Your task to perform on an android device: Go to privacy settings Image 0: 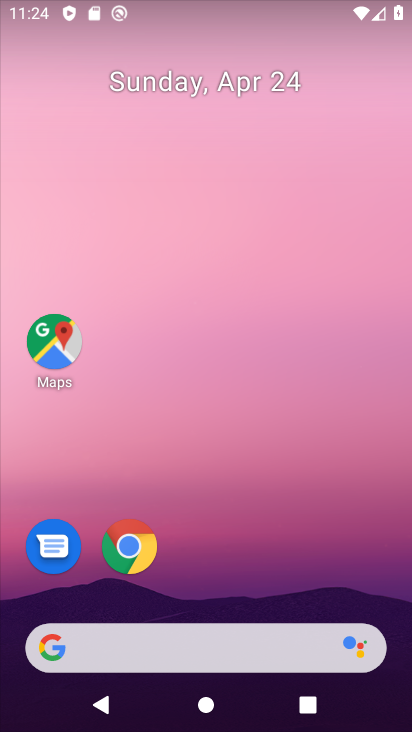
Step 0: click (106, 541)
Your task to perform on an android device: Go to privacy settings Image 1: 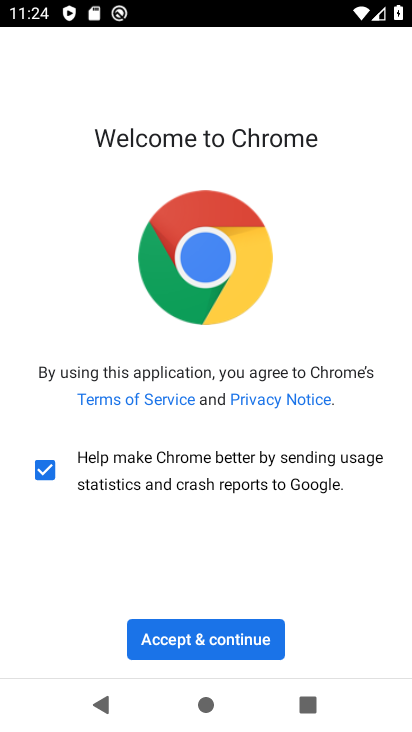
Step 1: click (235, 637)
Your task to perform on an android device: Go to privacy settings Image 2: 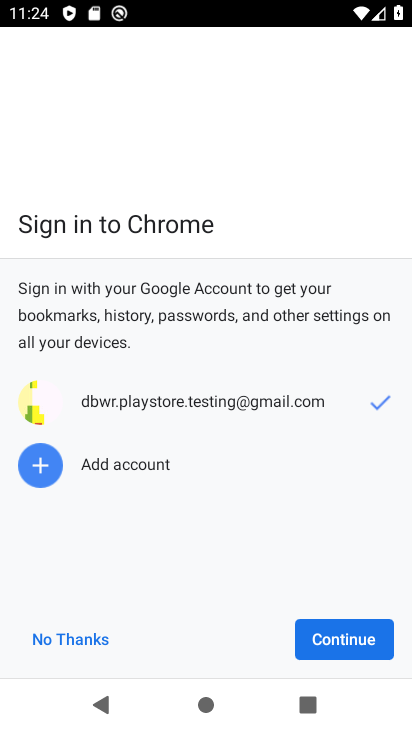
Step 2: click (353, 636)
Your task to perform on an android device: Go to privacy settings Image 3: 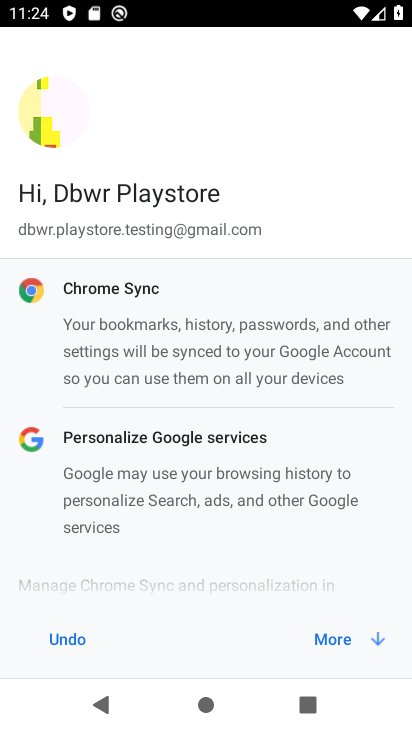
Step 3: click (324, 631)
Your task to perform on an android device: Go to privacy settings Image 4: 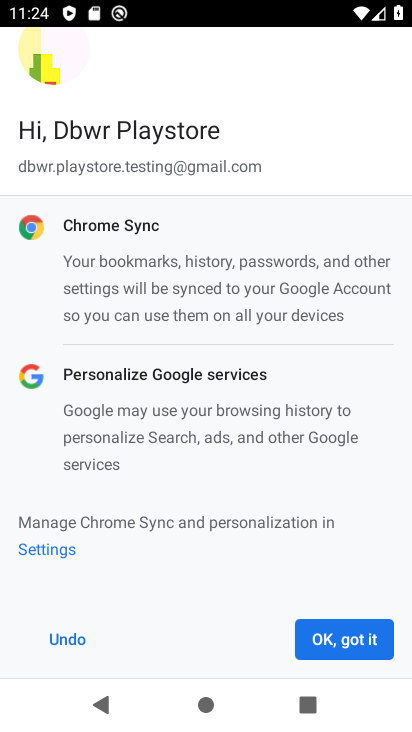
Step 4: click (324, 631)
Your task to perform on an android device: Go to privacy settings Image 5: 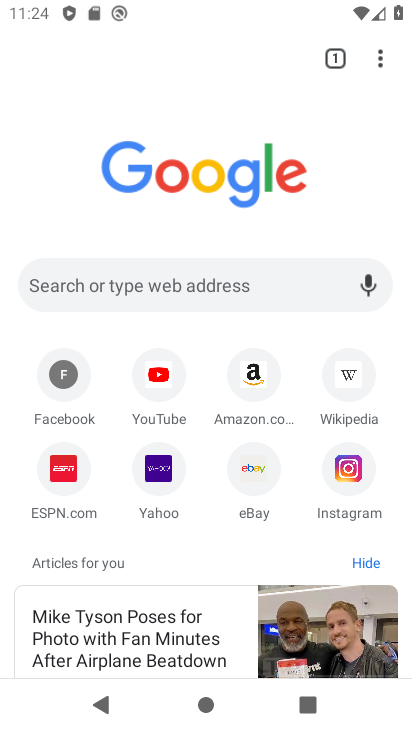
Step 5: drag from (381, 61) to (193, 500)
Your task to perform on an android device: Go to privacy settings Image 6: 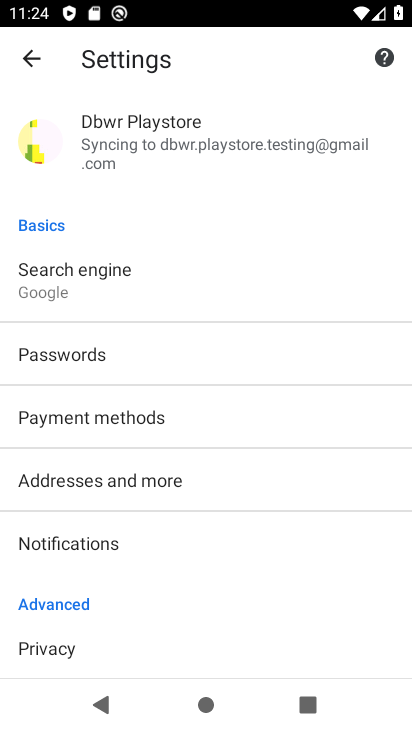
Step 6: click (88, 645)
Your task to perform on an android device: Go to privacy settings Image 7: 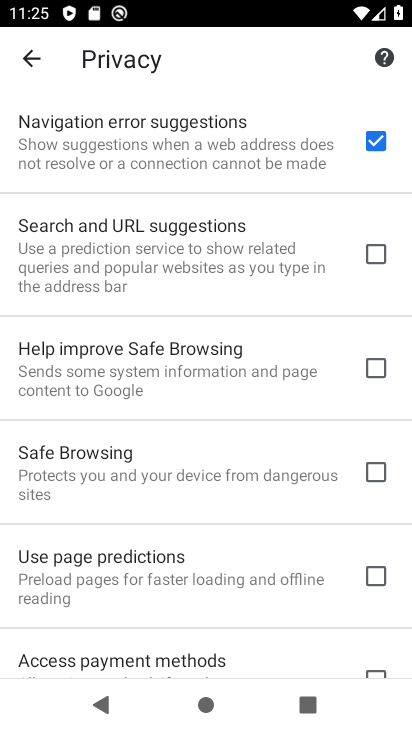
Step 7: task complete